Your task to perform on an android device: open the mobile data screen to see how much data has been used Image 0: 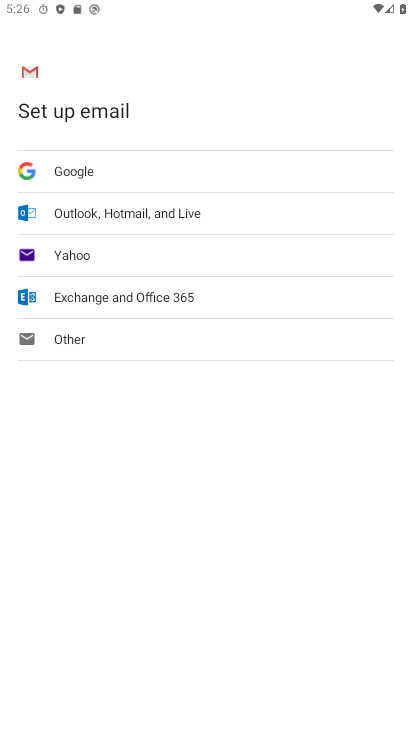
Step 0: press home button
Your task to perform on an android device: open the mobile data screen to see how much data has been used Image 1: 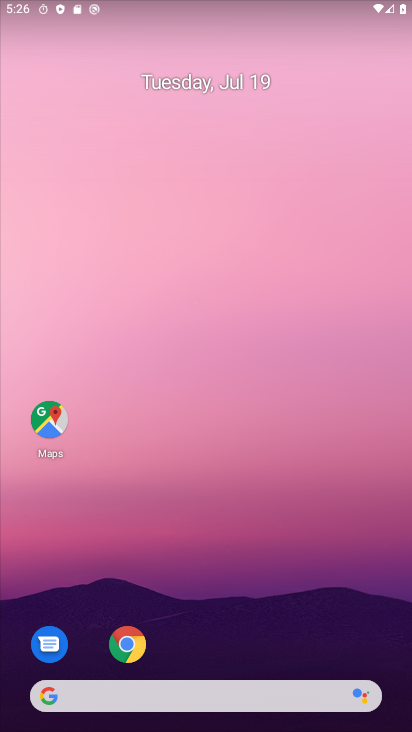
Step 1: drag from (269, 606) to (218, 254)
Your task to perform on an android device: open the mobile data screen to see how much data has been used Image 2: 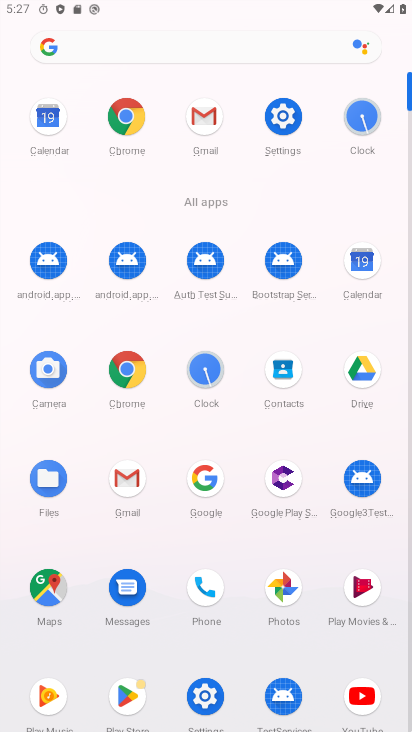
Step 2: click (200, 690)
Your task to perform on an android device: open the mobile data screen to see how much data has been used Image 3: 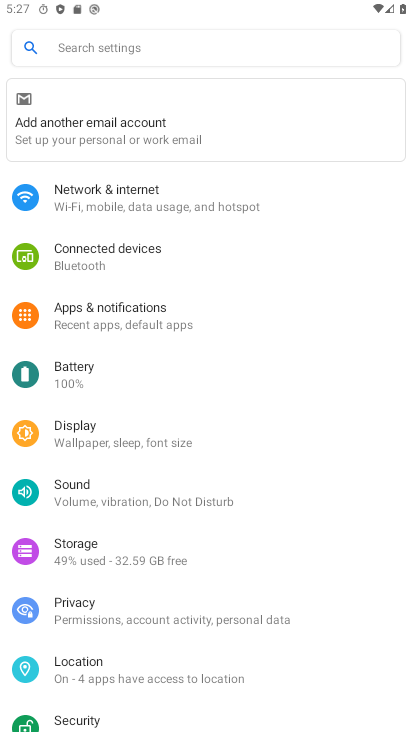
Step 3: click (165, 192)
Your task to perform on an android device: open the mobile data screen to see how much data has been used Image 4: 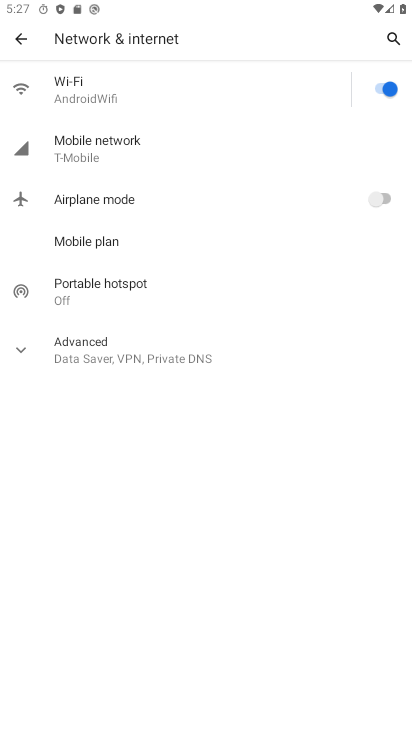
Step 4: click (106, 237)
Your task to perform on an android device: open the mobile data screen to see how much data has been used Image 5: 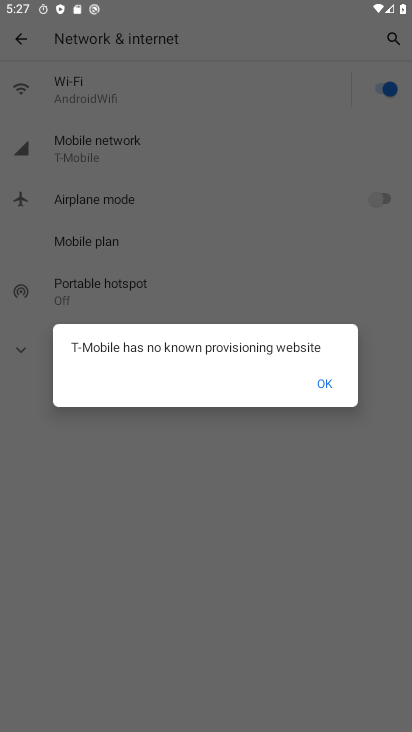
Step 5: click (326, 385)
Your task to perform on an android device: open the mobile data screen to see how much data has been used Image 6: 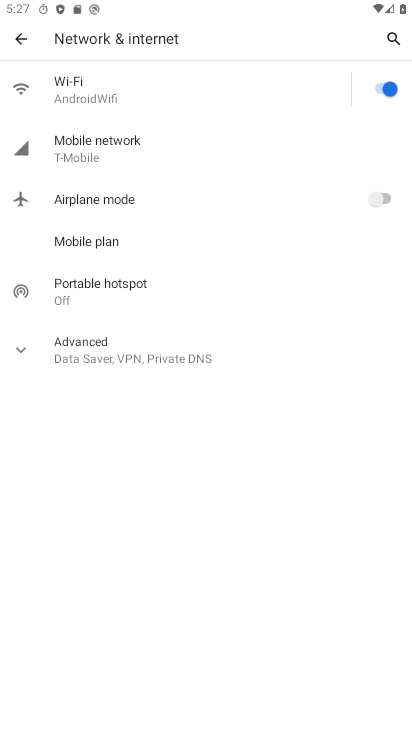
Step 6: click (25, 42)
Your task to perform on an android device: open the mobile data screen to see how much data has been used Image 7: 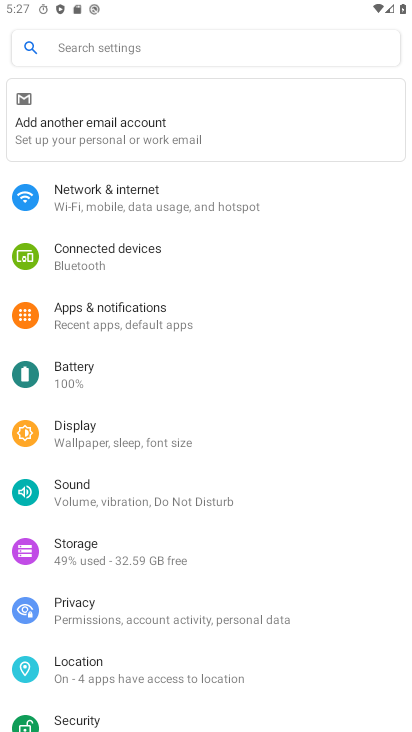
Step 7: click (118, 197)
Your task to perform on an android device: open the mobile data screen to see how much data has been used Image 8: 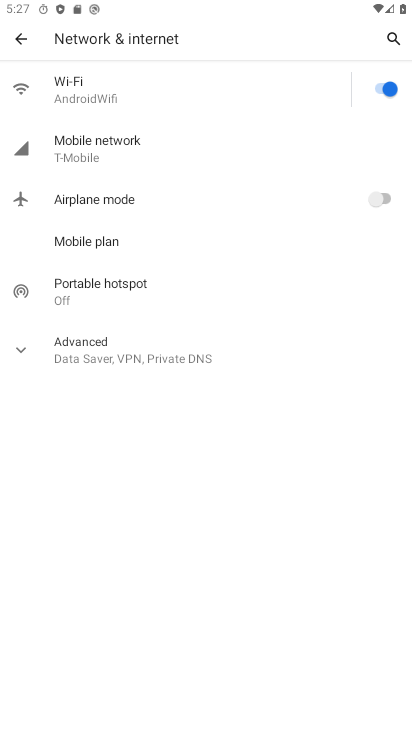
Step 8: click (168, 144)
Your task to perform on an android device: open the mobile data screen to see how much data has been used Image 9: 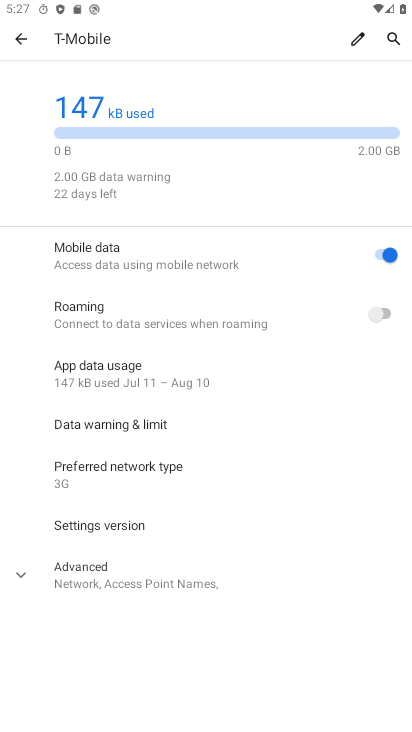
Step 9: click (111, 143)
Your task to perform on an android device: open the mobile data screen to see how much data has been used Image 10: 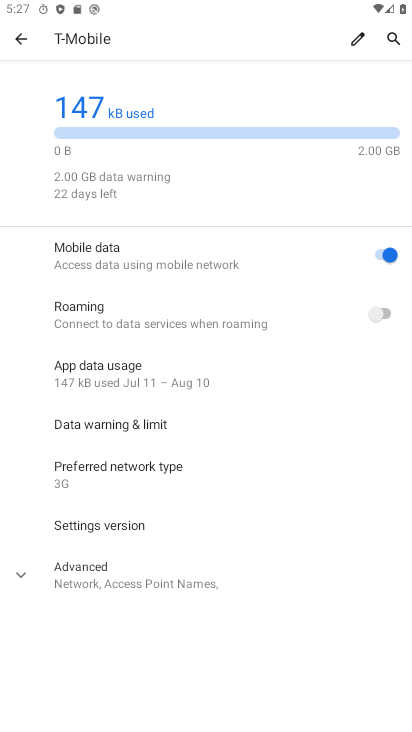
Step 10: task complete